Your task to perform on an android device: See recent photos Image 0: 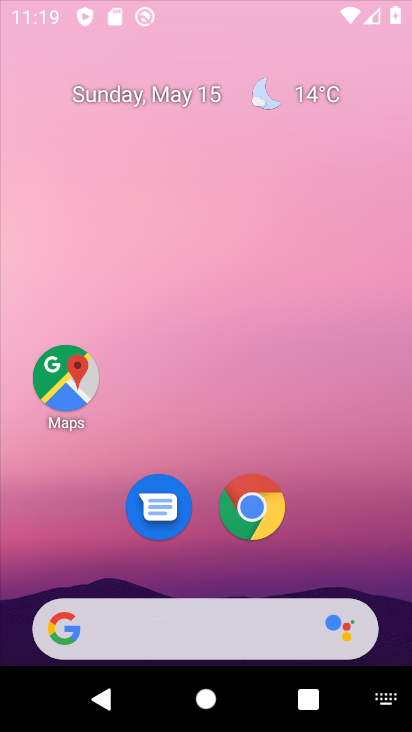
Step 0: drag from (135, 359) to (192, 87)
Your task to perform on an android device: See recent photos Image 1: 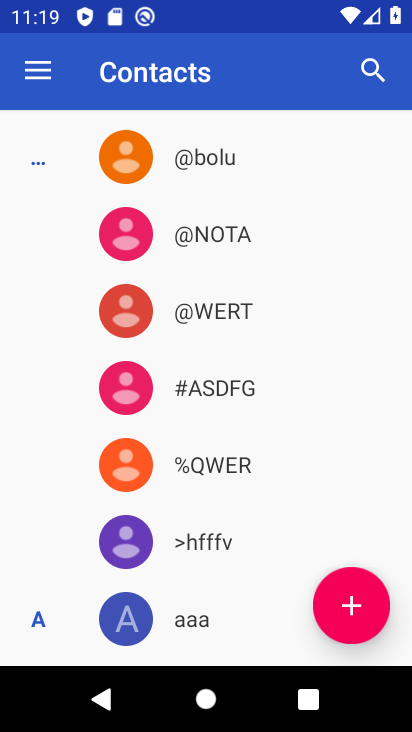
Step 1: press home button
Your task to perform on an android device: See recent photos Image 2: 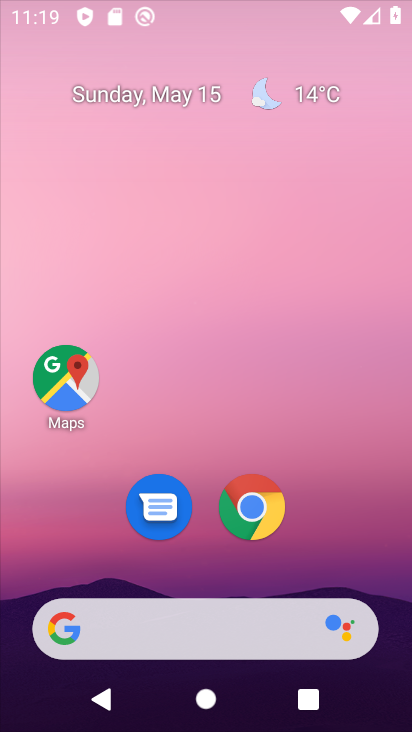
Step 2: drag from (109, 581) to (251, 10)
Your task to perform on an android device: See recent photos Image 3: 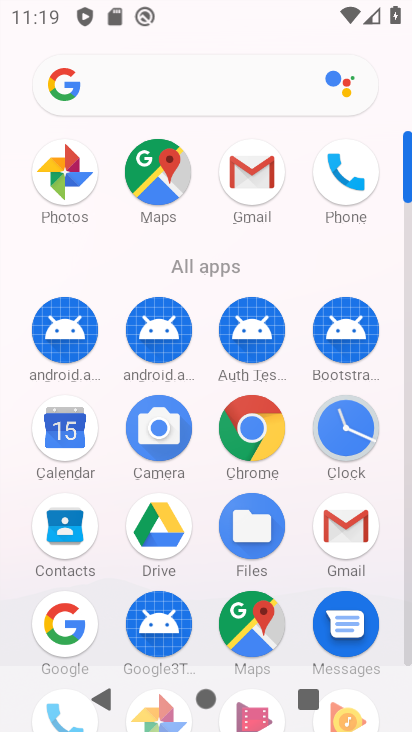
Step 3: drag from (216, 610) to (295, 246)
Your task to perform on an android device: See recent photos Image 4: 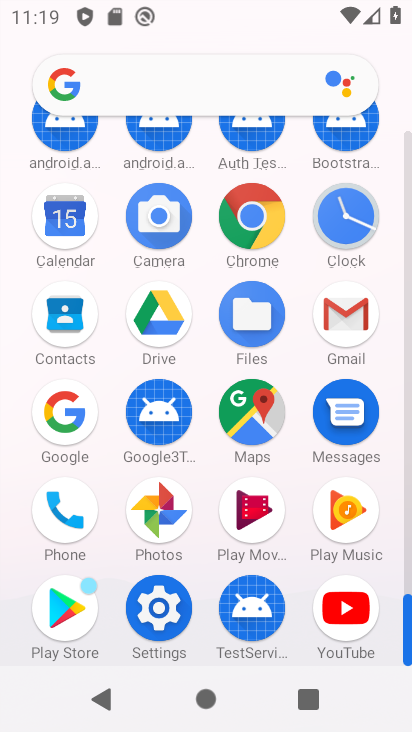
Step 4: click (150, 513)
Your task to perform on an android device: See recent photos Image 5: 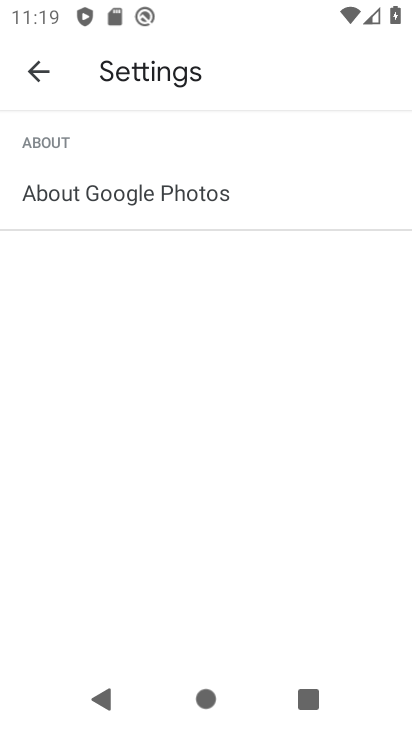
Step 5: click (59, 85)
Your task to perform on an android device: See recent photos Image 6: 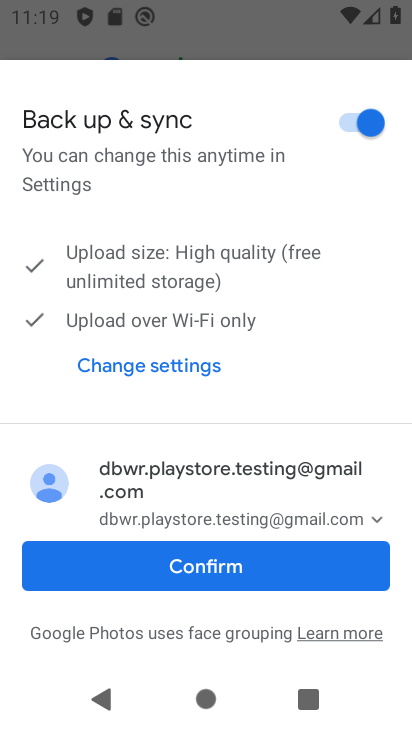
Step 6: click (228, 572)
Your task to perform on an android device: See recent photos Image 7: 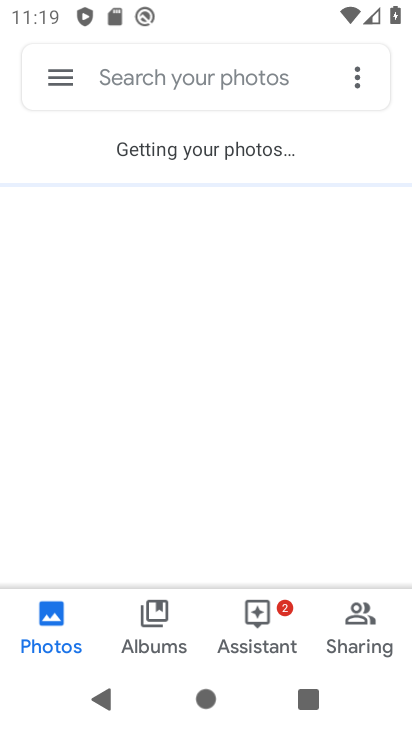
Step 7: task complete